Your task to perform on an android device: Open calendar and show me the fourth week of next month Image 0: 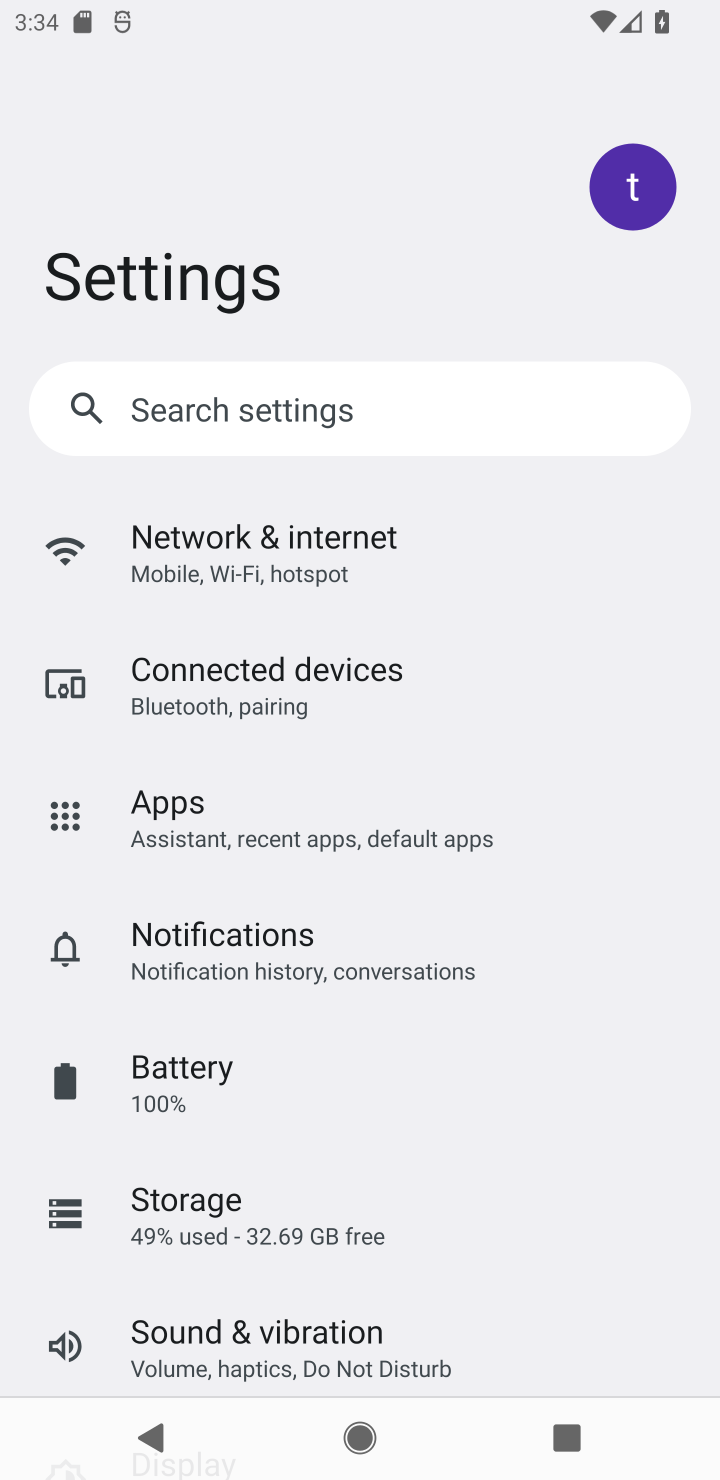
Step 0: task complete